Your task to perform on an android device: Open Youtube and go to the subscriptions tab Image 0: 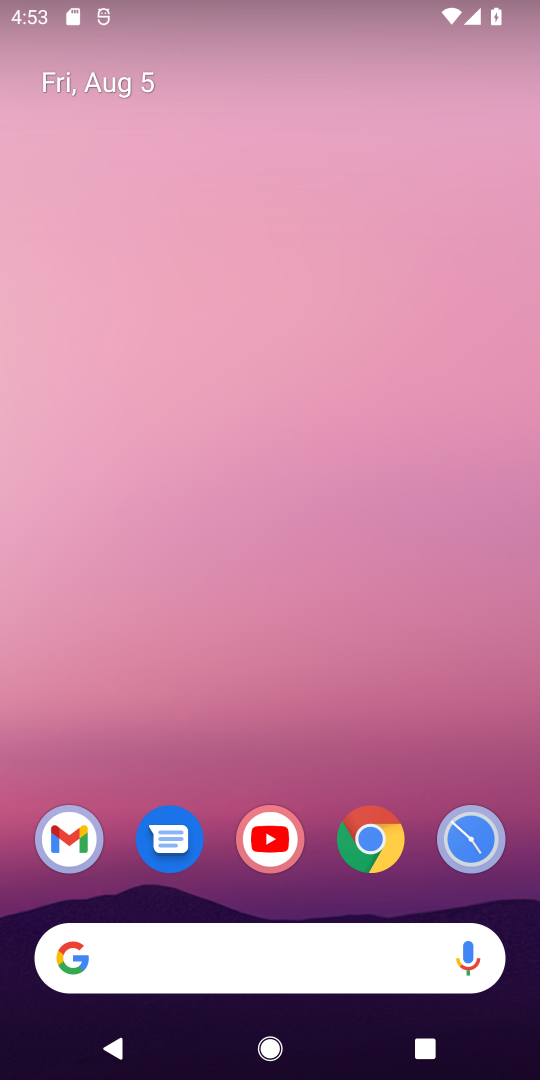
Step 0: click (258, 818)
Your task to perform on an android device: Open Youtube and go to the subscriptions tab Image 1: 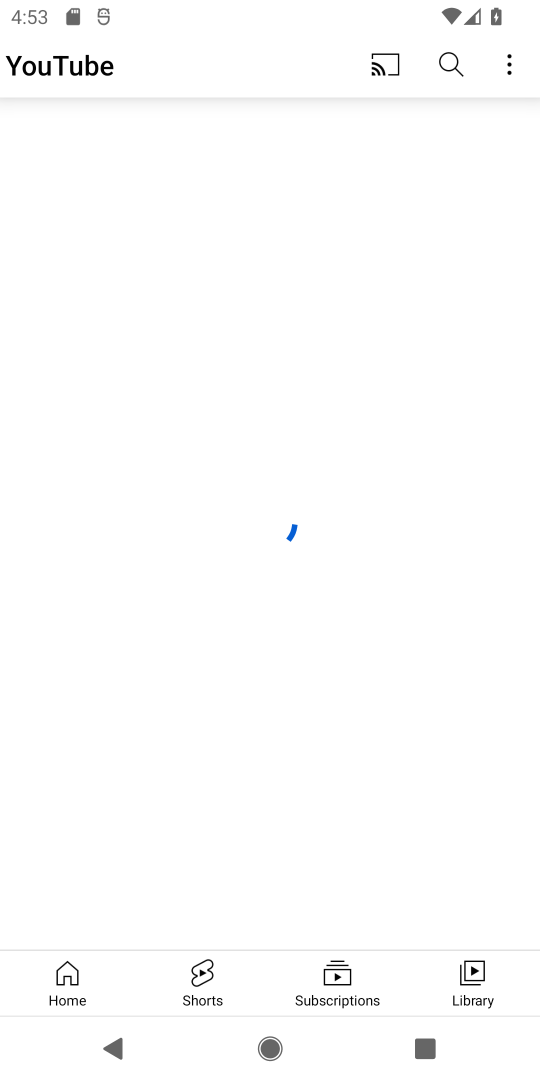
Step 1: click (310, 978)
Your task to perform on an android device: Open Youtube and go to the subscriptions tab Image 2: 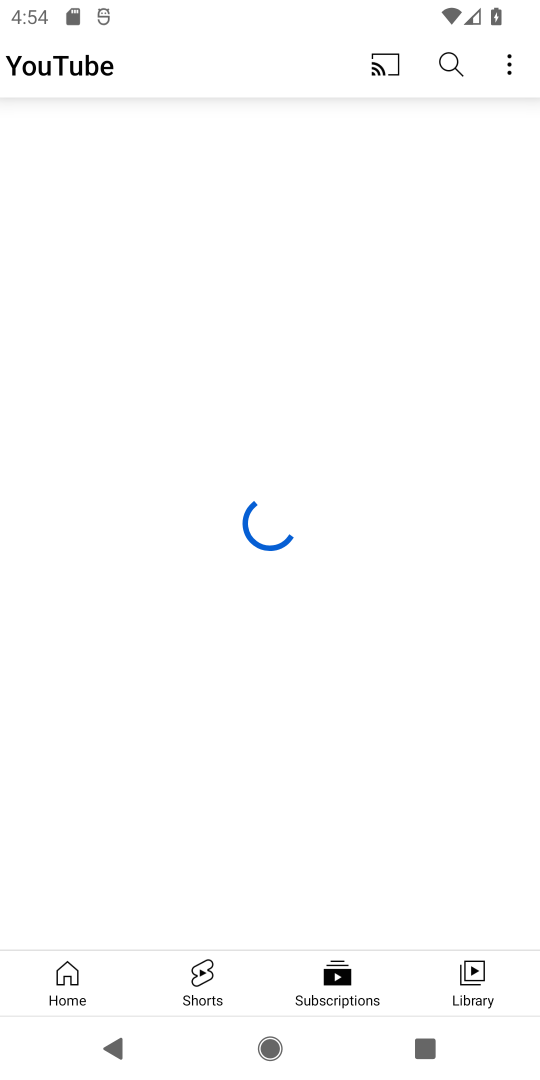
Step 2: task complete